Your task to perform on an android device: toggle data saver in the chrome app Image 0: 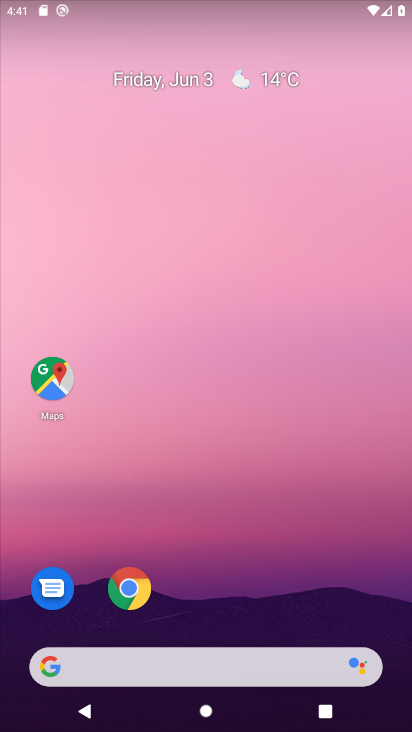
Step 0: drag from (236, 540) to (132, 1)
Your task to perform on an android device: toggle data saver in the chrome app Image 1: 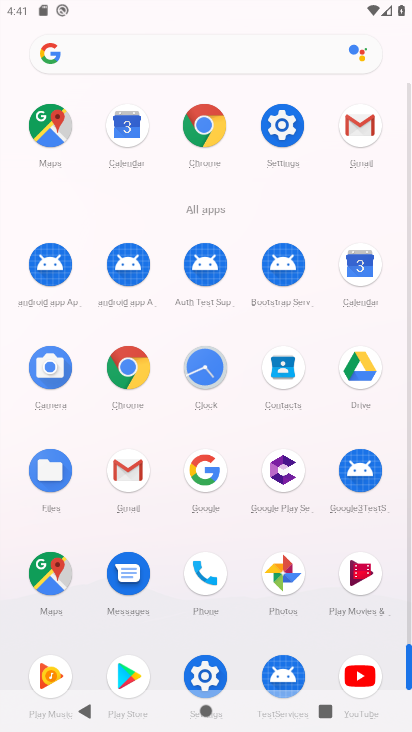
Step 1: click (126, 362)
Your task to perform on an android device: toggle data saver in the chrome app Image 2: 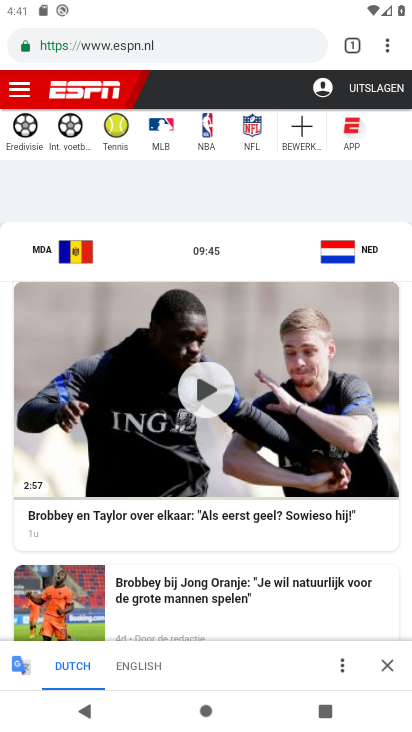
Step 2: drag from (382, 42) to (206, 545)
Your task to perform on an android device: toggle data saver in the chrome app Image 3: 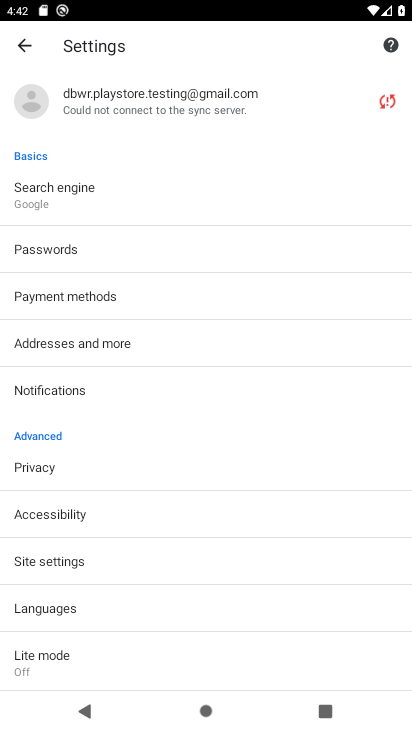
Step 3: drag from (118, 586) to (162, 219)
Your task to perform on an android device: toggle data saver in the chrome app Image 4: 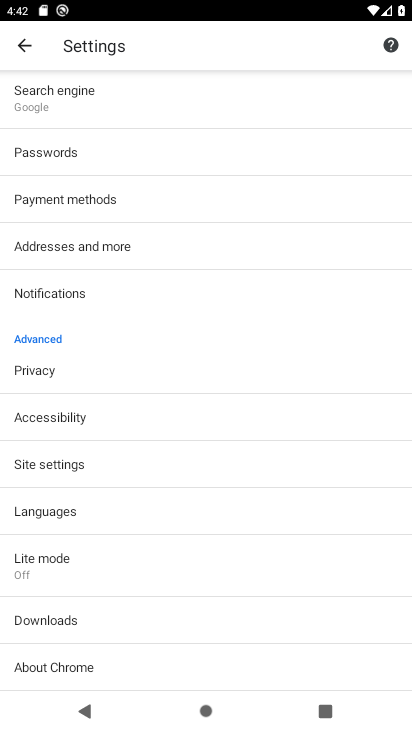
Step 4: click (69, 549)
Your task to perform on an android device: toggle data saver in the chrome app Image 5: 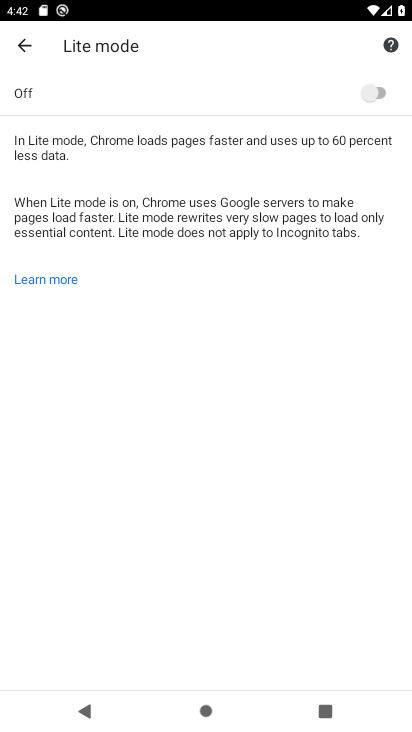
Step 5: click (386, 88)
Your task to perform on an android device: toggle data saver in the chrome app Image 6: 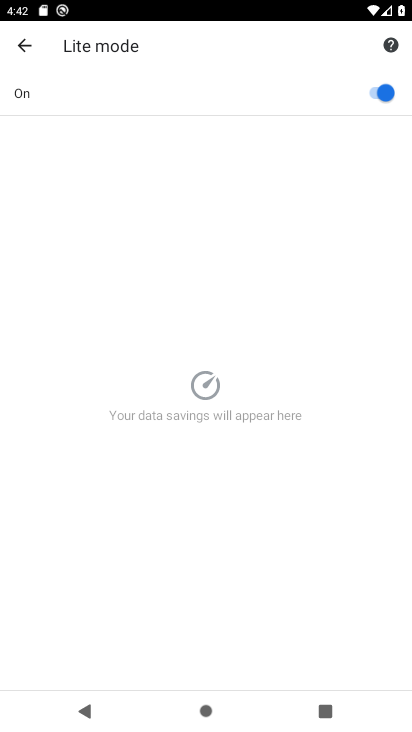
Step 6: task complete